Your task to perform on an android device: What's the weather today? Image 0: 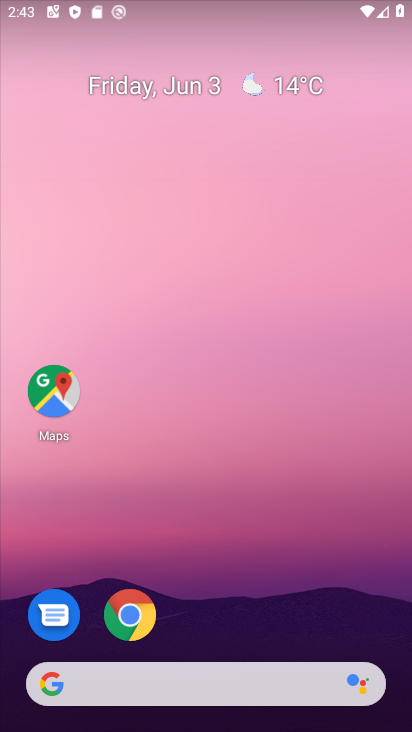
Step 0: press home button
Your task to perform on an android device: What's the weather today? Image 1: 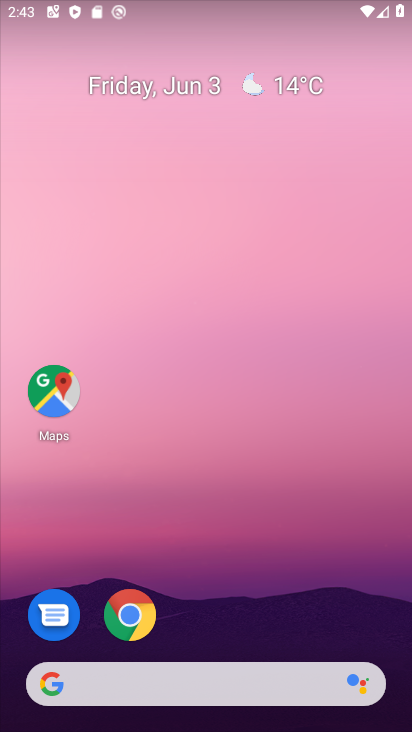
Step 1: click (50, 672)
Your task to perform on an android device: What's the weather today? Image 2: 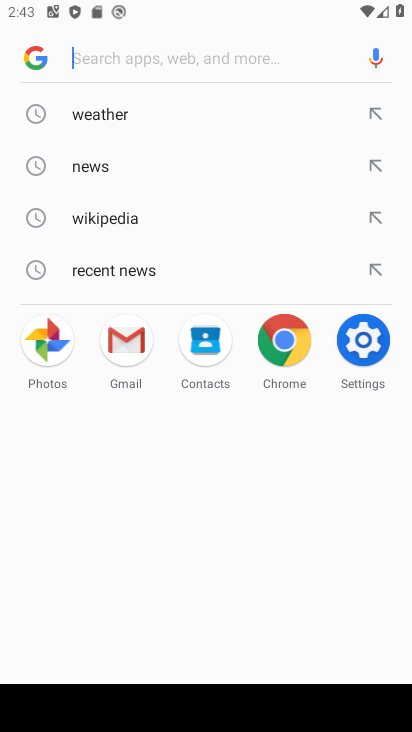
Step 2: type "weather today?"
Your task to perform on an android device: What's the weather today? Image 3: 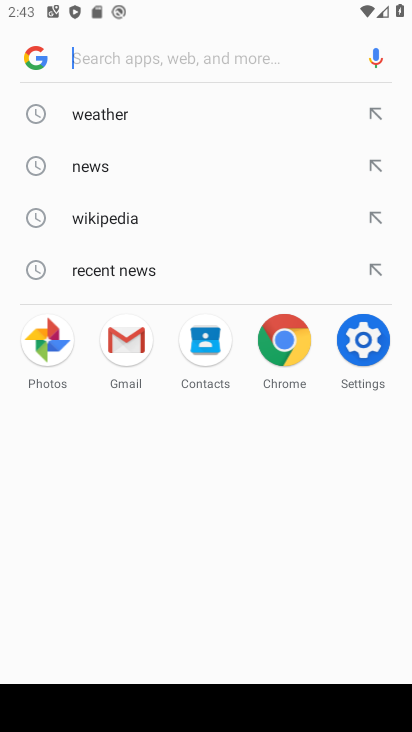
Step 3: click (201, 61)
Your task to perform on an android device: What's the weather today? Image 4: 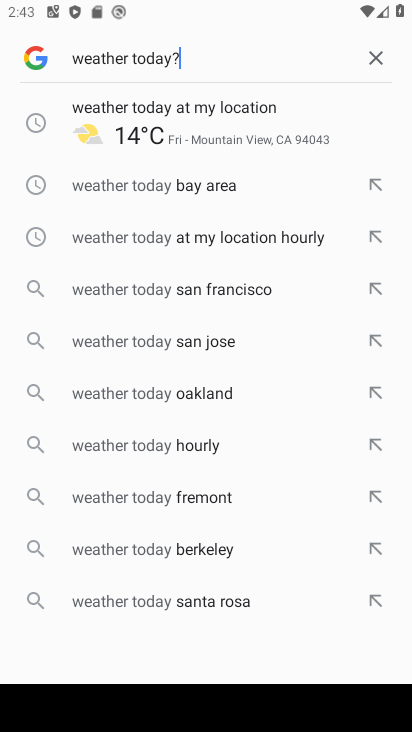
Step 4: click (221, 117)
Your task to perform on an android device: What's the weather today? Image 5: 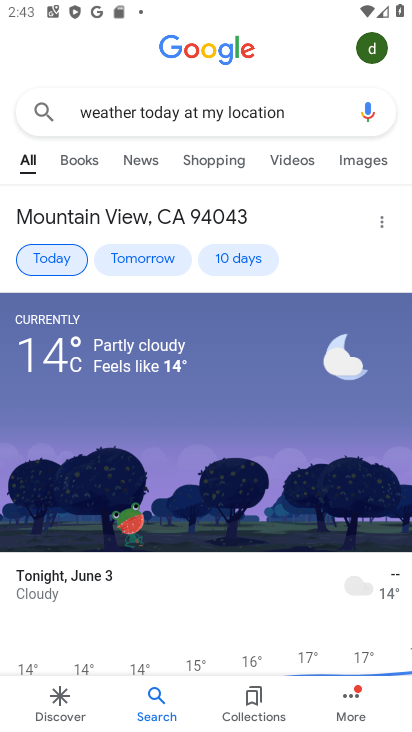
Step 5: task complete